Your task to perform on an android device: View the shopping cart on costco.com. Search for logitech g pro on costco.com, select the first entry, and add it to the cart. Image 0: 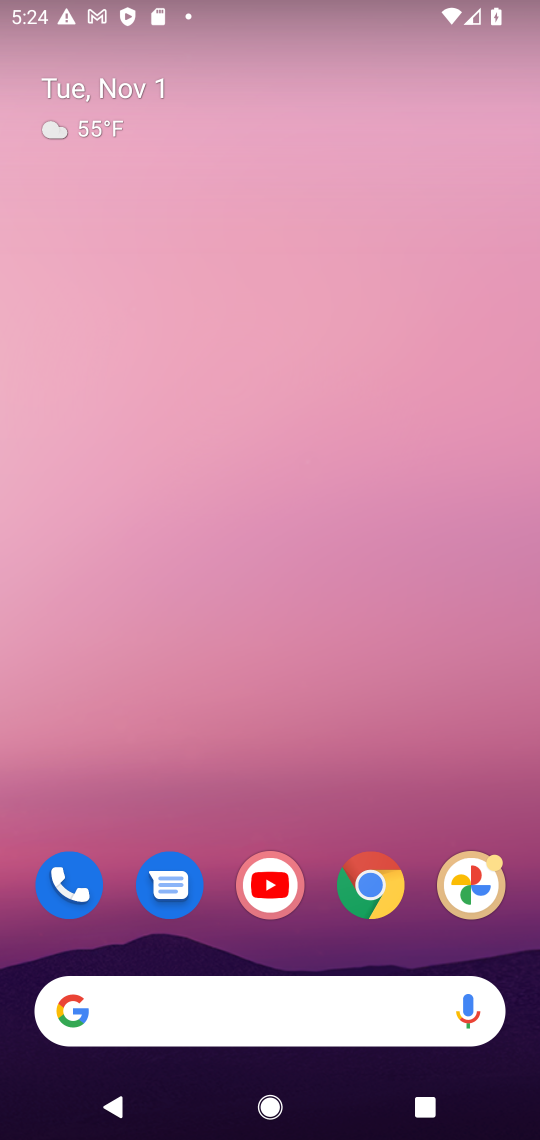
Step 0: click (374, 884)
Your task to perform on an android device: View the shopping cart on costco.com. Search for logitech g pro on costco.com, select the first entry, and add it to the cart. Image 1: 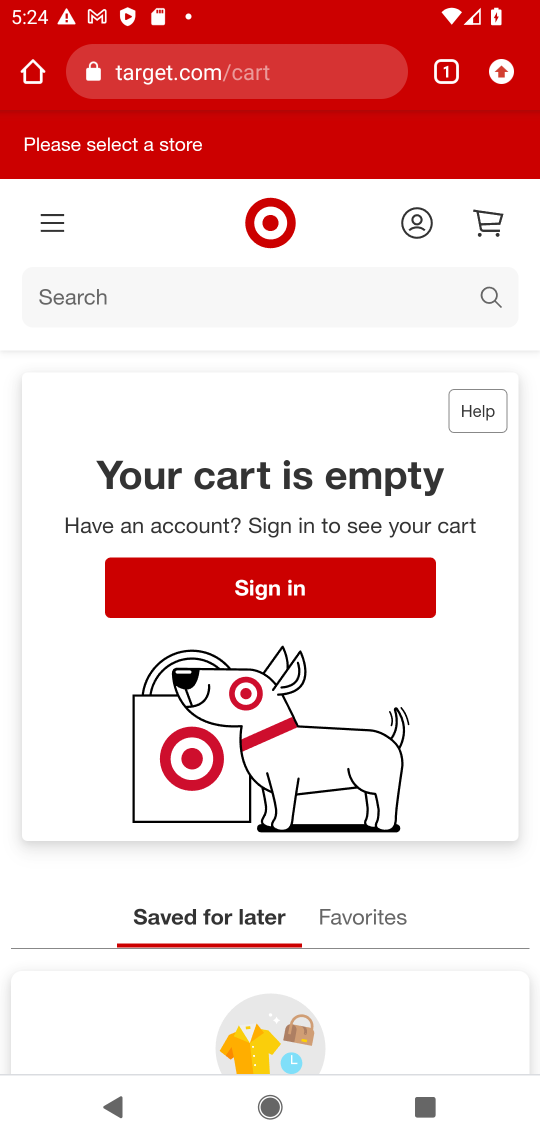
Step 1: click (288, 53)
Your task to perform on an android device: View the shopping cart on costco.com. Search for logitech g pro on costco.com, select the first entry, and add it to the cart. Image 2: 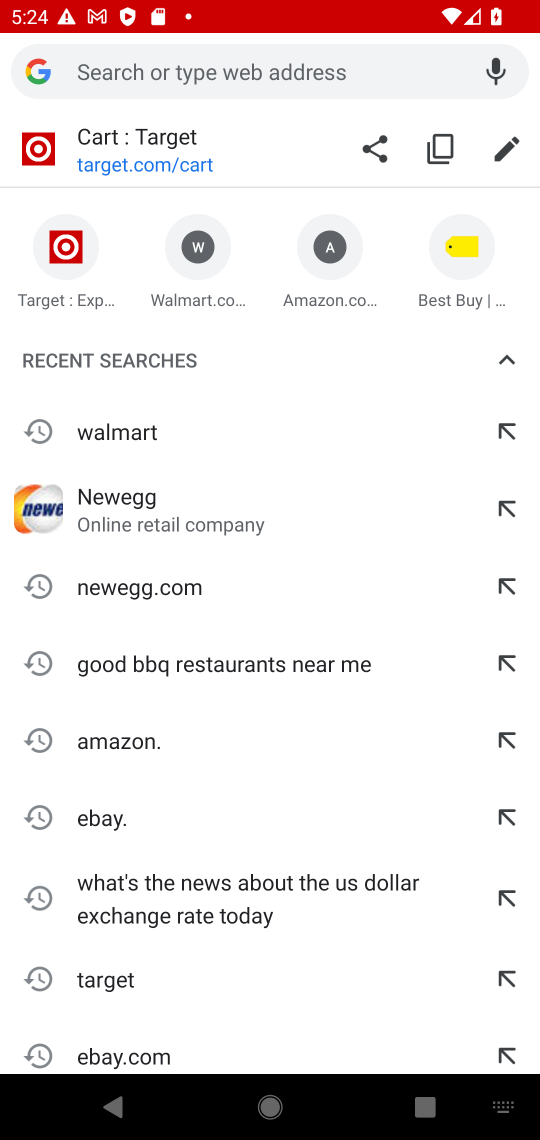
Step 2: type "costco.com"
Your task to perform on an android device: View the shopping cart on costco.com. Search for logitech g pro on costco.com, select the first entry, and add it to the cart. Image 3: 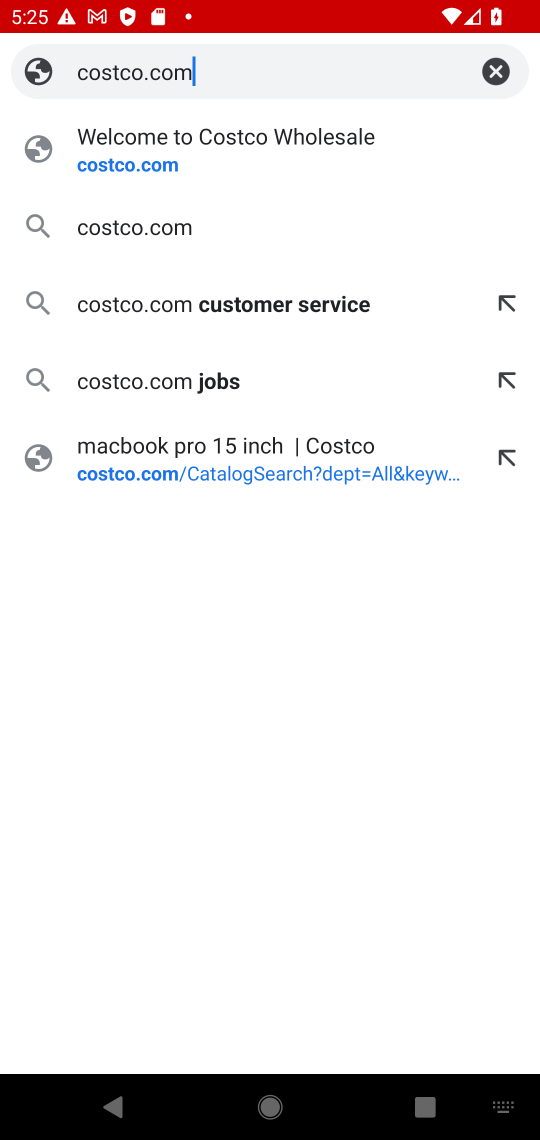
Step 3: click (140, 141)
Your task to perform on an android device: View the shopping cart on costco.com. Search for logitech g pro on costco.com, select the first entry, and add it to the cart. Image 4: 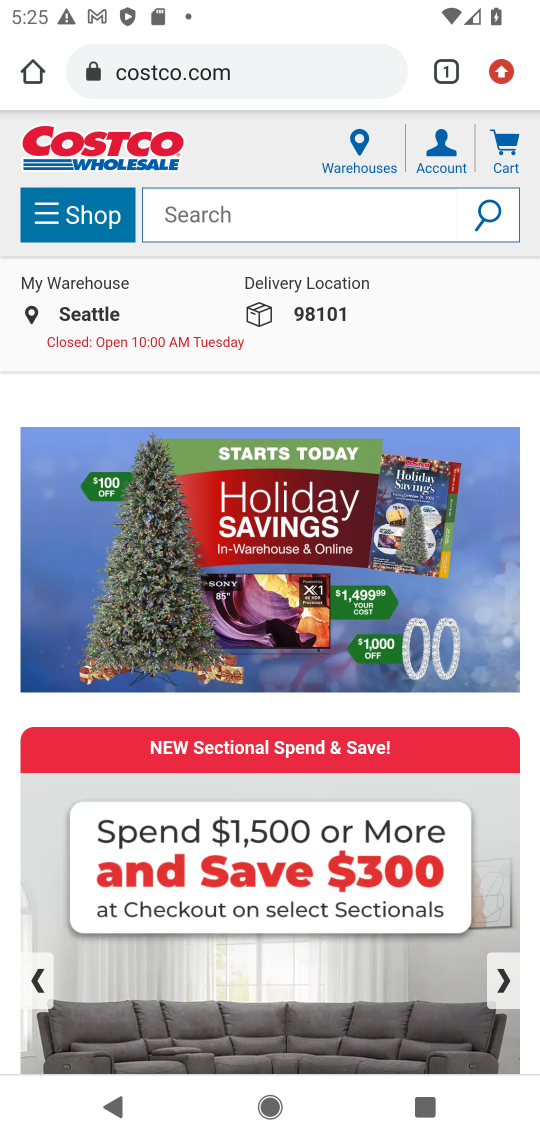
Step 4: click (506, 139)
Your task to perform on an android device: View the shopping cart on costco.com. Search for logitech g pro on costco.com, select the first entry, and add it to the cart. Image 5: 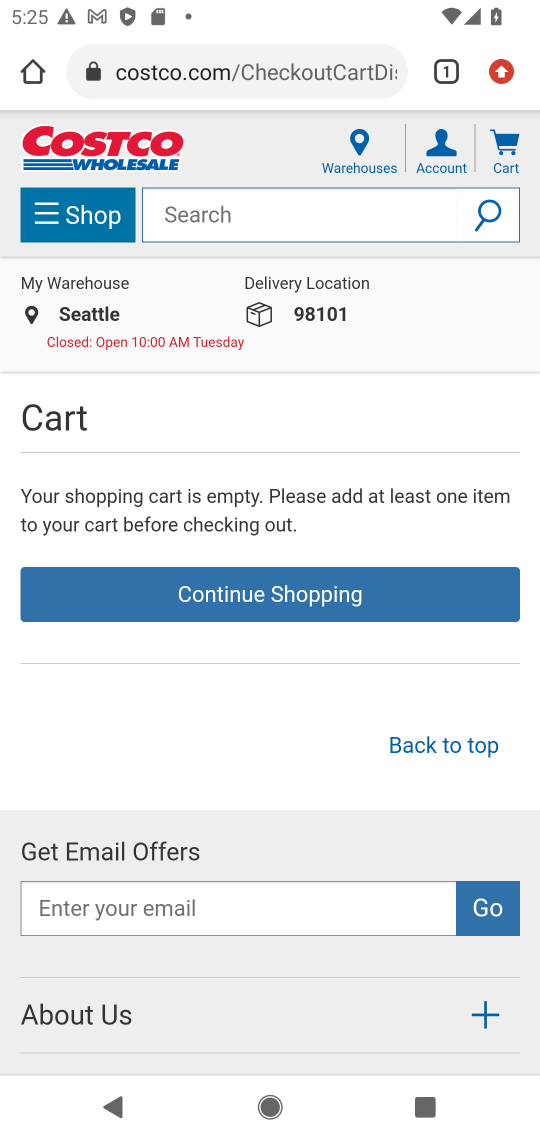
Step 5: click (195, 203)
Your task to perform on an android device: View the shopping cart on costco.com. Search for logitech g pro on costco.com, select the first entry, and add it to the cart. Image 6: 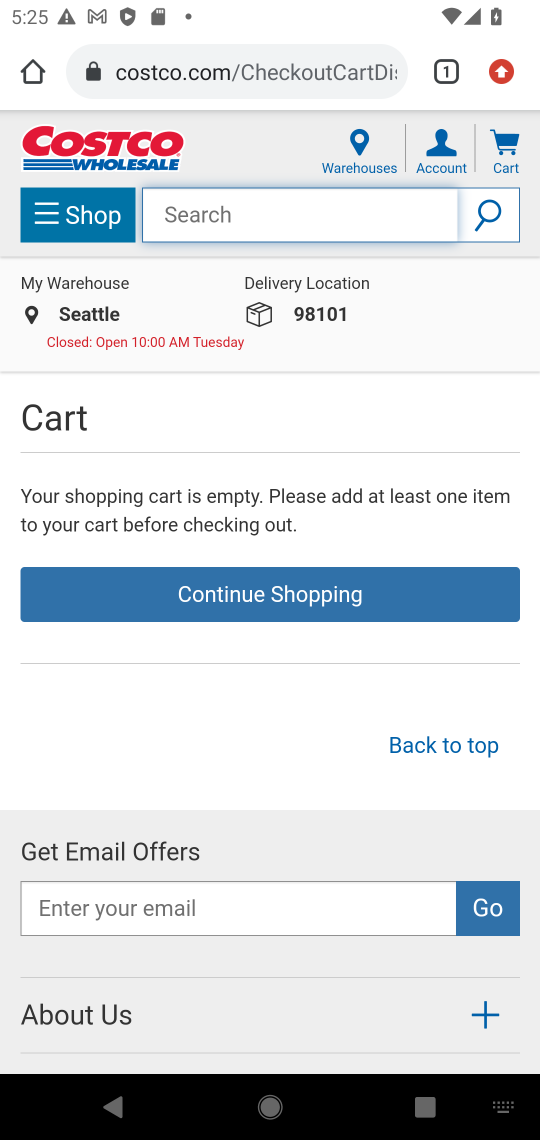
Step 6: type "logitech g pro"
Your task to perform on an android device: View the shopping cart on costco.com. Search for logitech g pro on costco.com, select the first entry, and add it to the cart. Image 7: 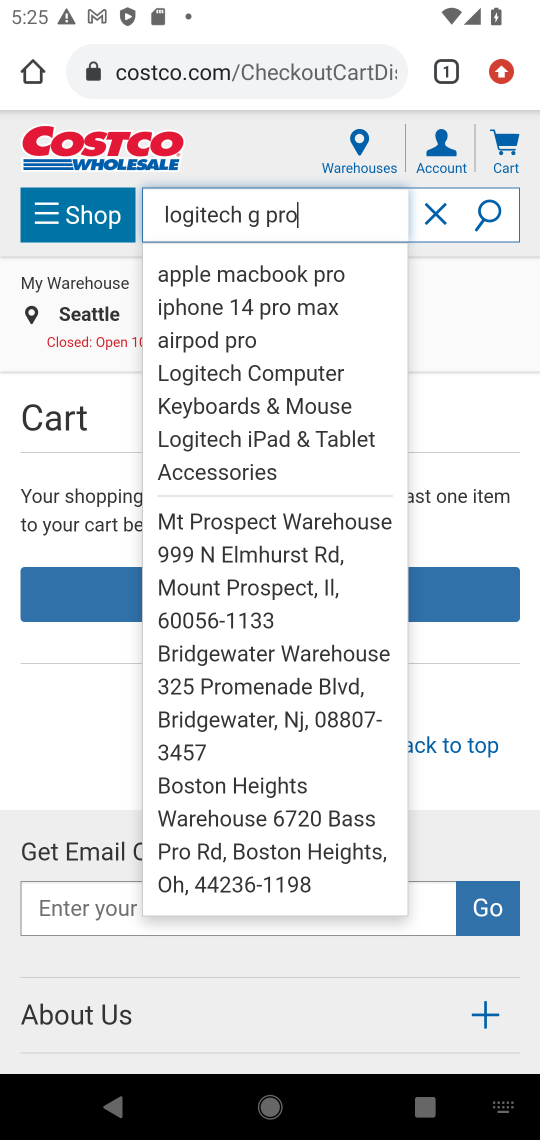
Step 7: click (486, 212)
Your task to perform on an android device: View the shopping cart on costco.com. Search for logitech g pro on costco.com, select the first entry, and add it to the cart. Image 8: 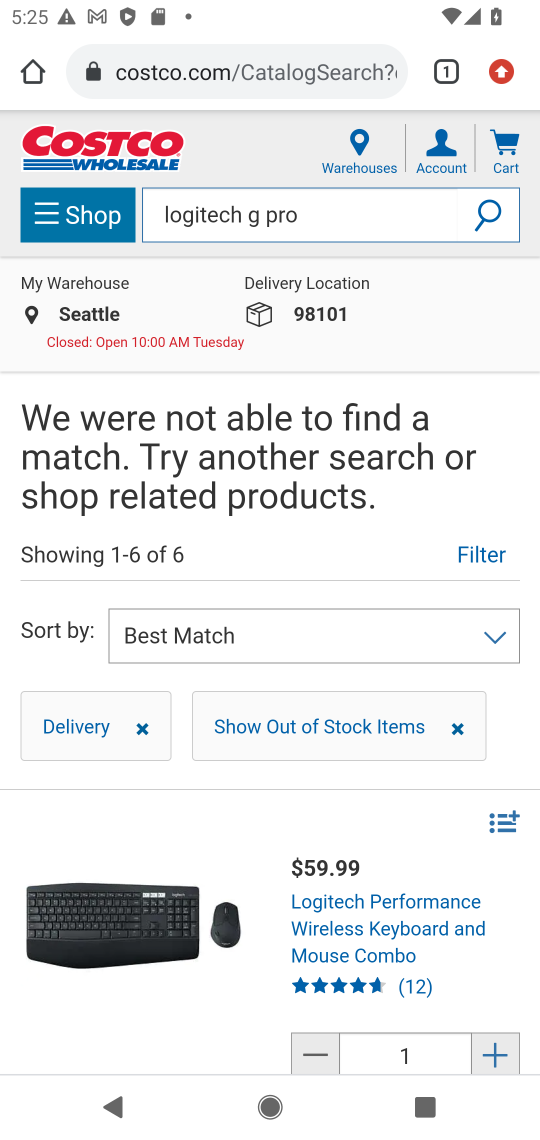
Step 8: drag from (240, 959) to (311, 465)
Your task to perform on an android device: View the shopping cart on costco.com. Search for logitech g pro on costco.com, select the first entry, and add it to the cart. Image 9: 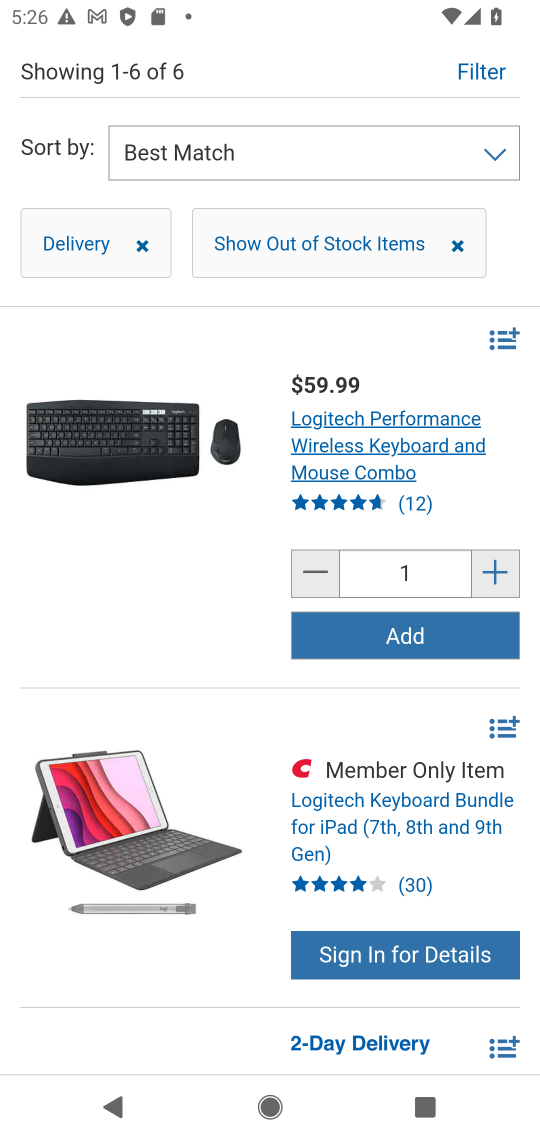
Step 9: click (411, 628)
Your task to perform on an android device: View the shopping cart on costco.com. Search for logitech g pro on costco.com, select the first entry, and add it to the cart. Image 10: 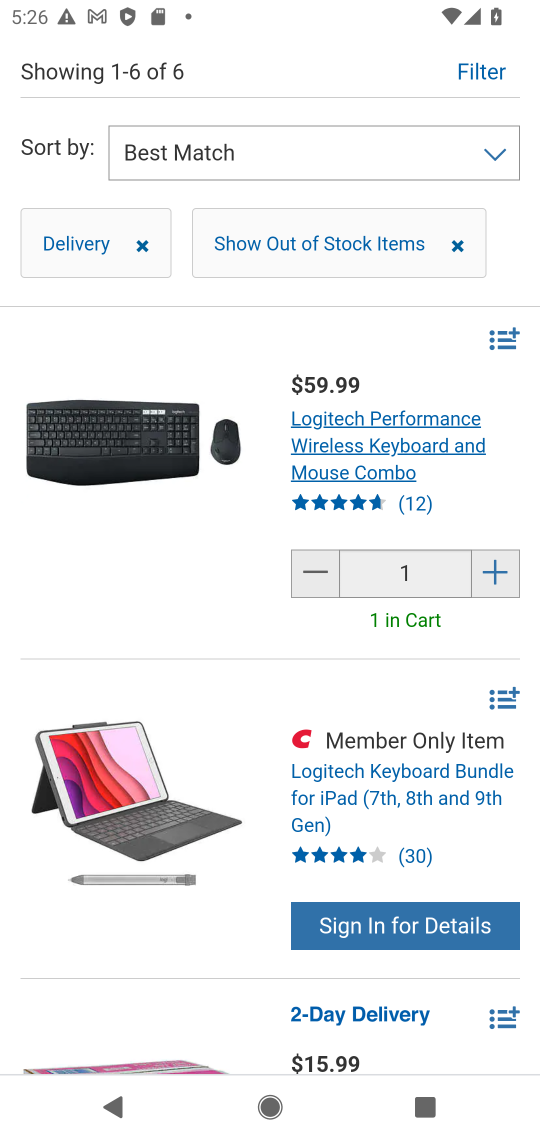
Step 10: task complete